Your task to perform on an android device: all mails in gmail Image 0: 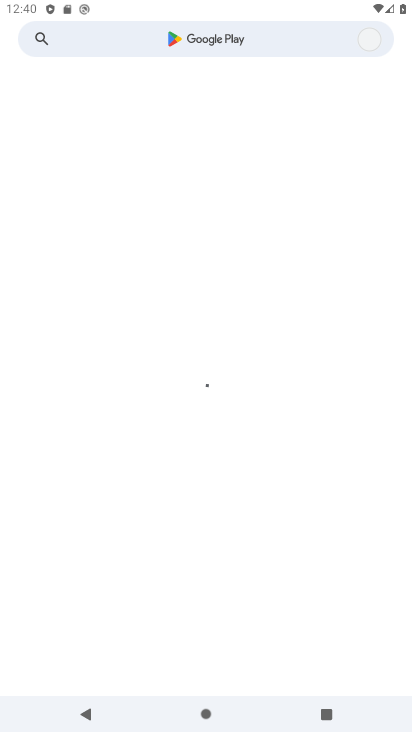
Step 0: press home button
Your task to perform on an android device: all mails in gmail Image 1: 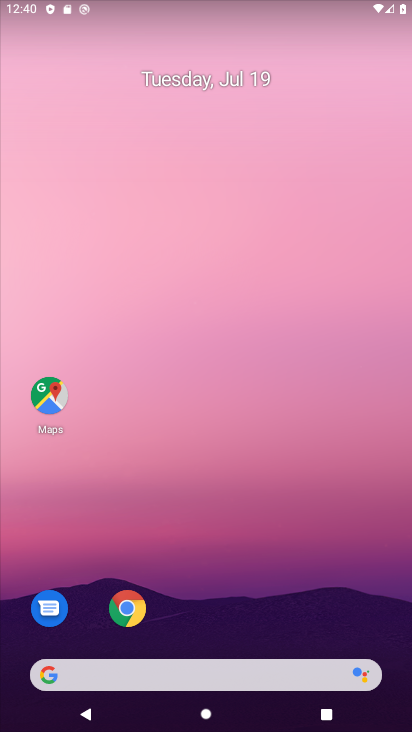
Step 1: drag from (291, 637) to (239, 189)
Your task to perform on an android device: all mails in gmail Image 2: 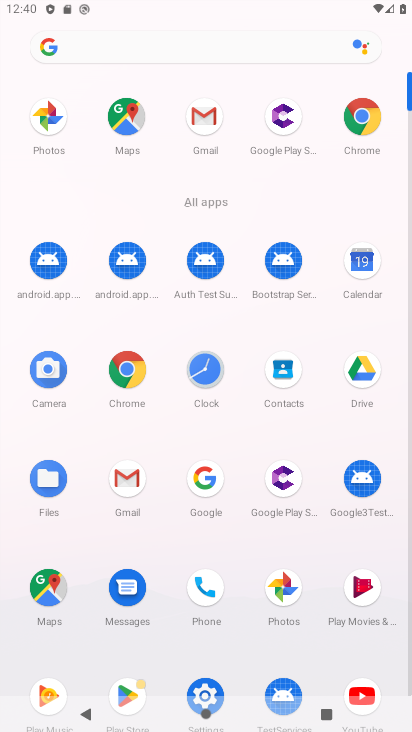
Step 2: click (191, 124)
Your task to perform on an android device: all mails in gmail Image 3: 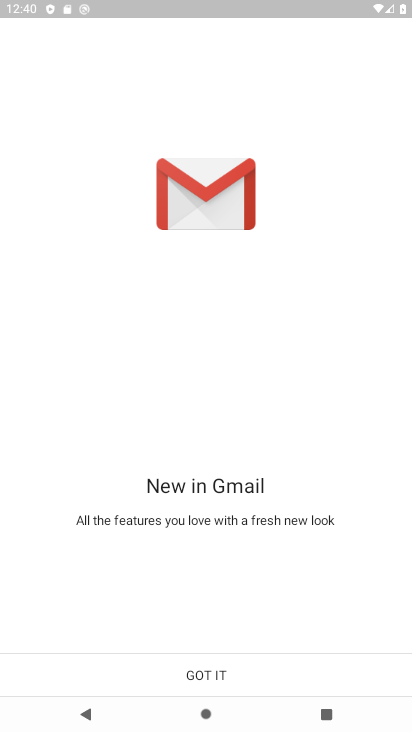
Step 3: click (204, 678)
Your task to perform on an android device: all mails in gmail Image 4: 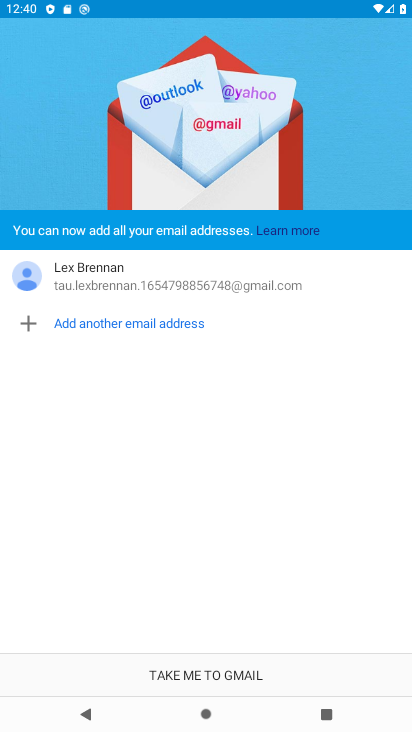
Step 4: click (204, 678)
Your task to perform on an android device: all mails in gmail Image 5: 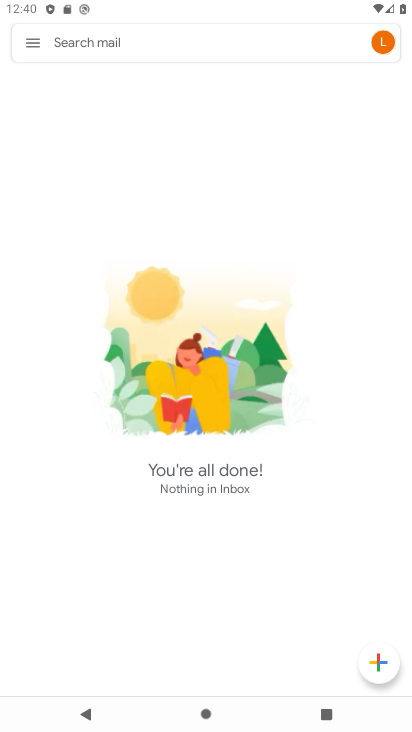
Step 5: click (30, 43)
Your task to perform on an android device: all mails in gmail Image 6: 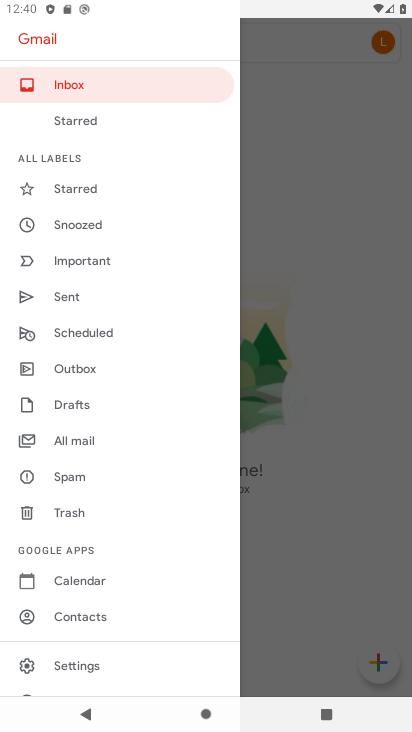
Step 6: click (83, 438)
Your task to perform on an android device: all mails in gmail Image 7: 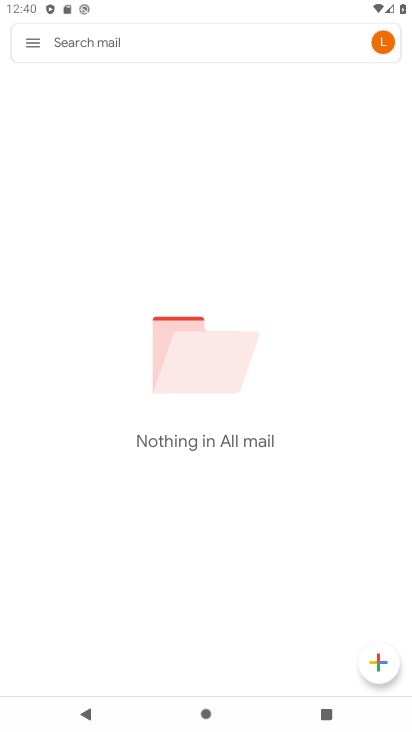
Step 7: task complete